Your task to perform on an android device: turn off location Image 0: 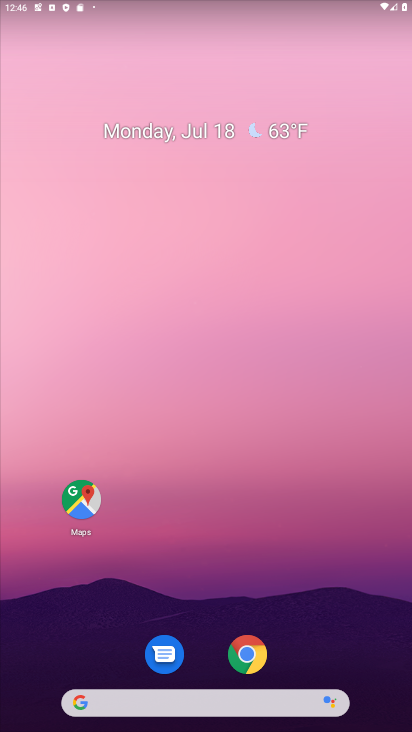
Step 0: drag from (198, 603) to (201, 169)
Your task to perform on an android device: turn off location Image 1: 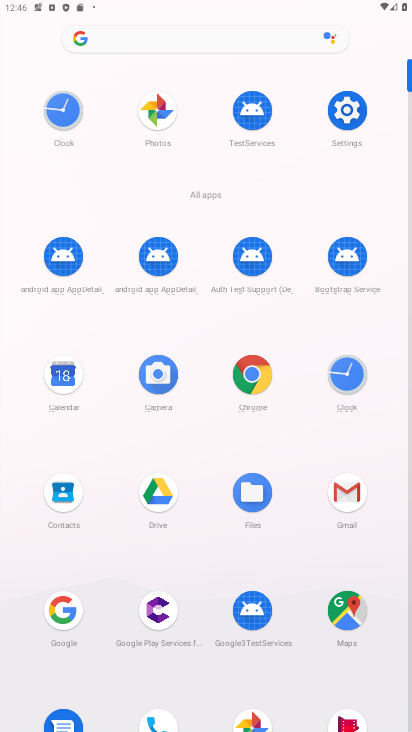
Step 1: click (370, 114)
Your task to perform on an android device: turn off location Image 2: 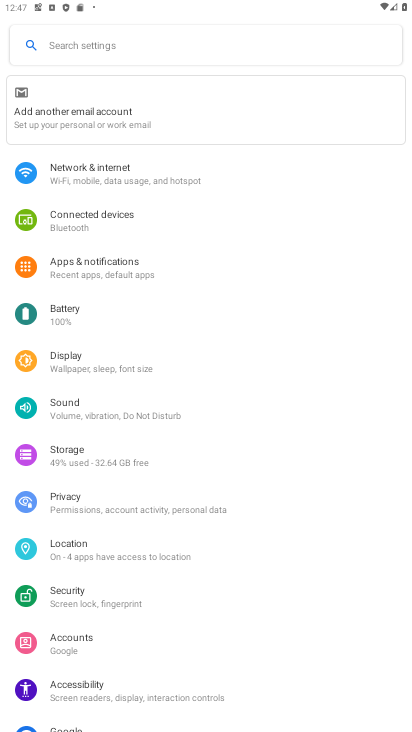
Step 2: drag from (118, 551) to (144, 336)
Your task to perform on an android device: turn off location Image 3: 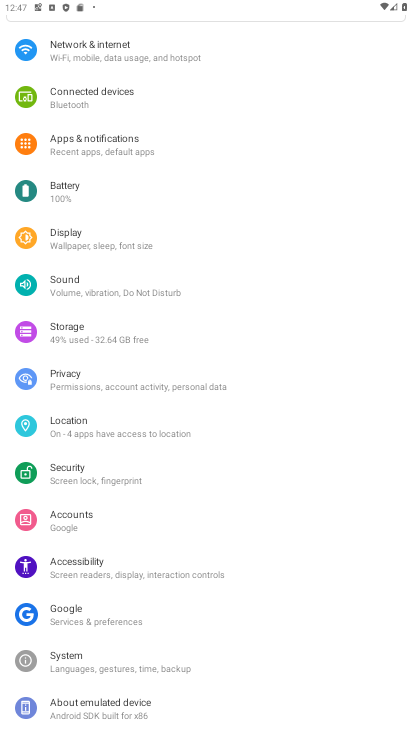
Step 3: click (127, 423)
Your task to perform on an android device: turn off location Image 4: 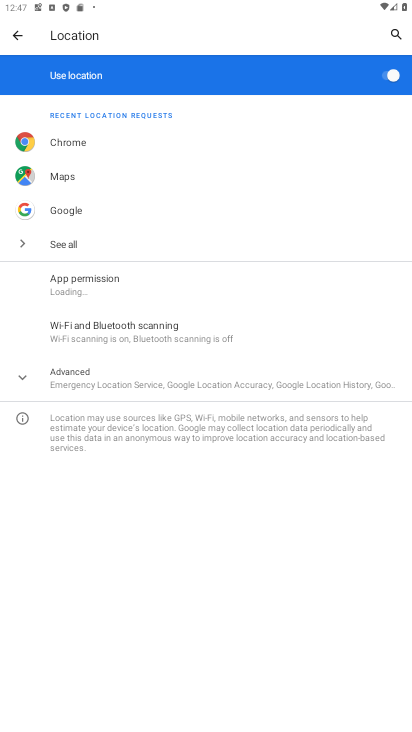
Step 4: click (384, 65)
Your task to perform on an android device: turn off location Image 5: 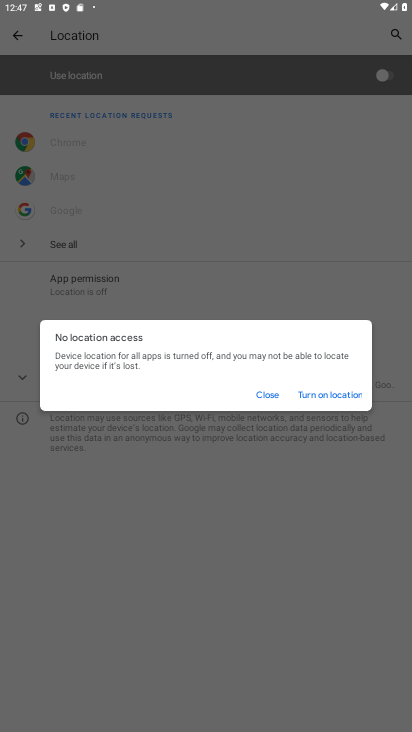
Step 5: task complete